Your task to perform on an android device: Turn off the flashlight Image 0: 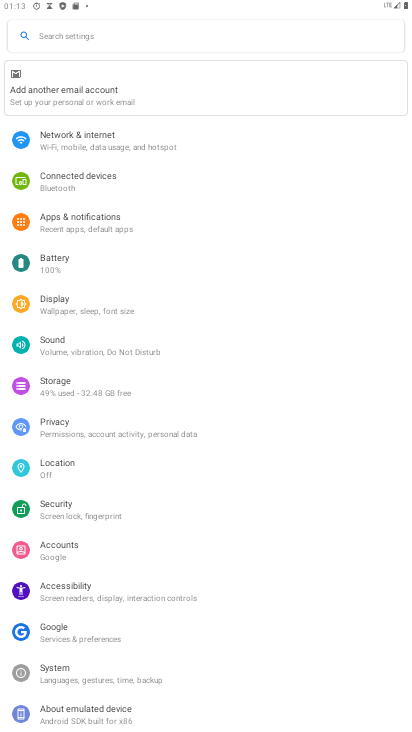
Step 0: press home button
Your task to perform on an android device: Turn off the flashlight Image 1: 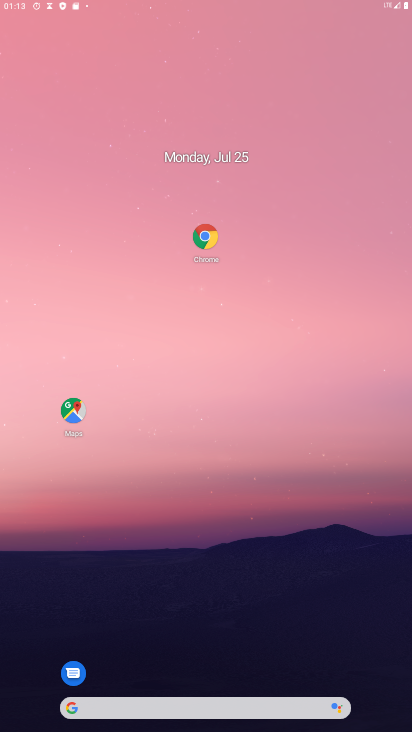
Step 1: drag from (198, 688) to (244, 2)
Your task to perform on an android device: Turn off the flashlight Image 2: 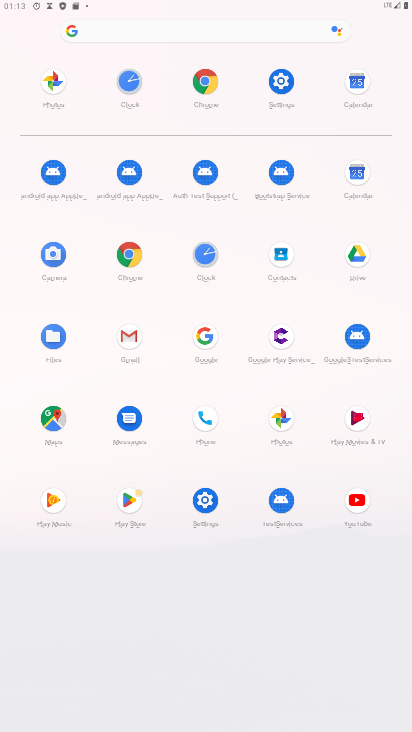
Step 2: click (283, 80)
Your task to perform on an android device: Turn off the flashlight Image 3: 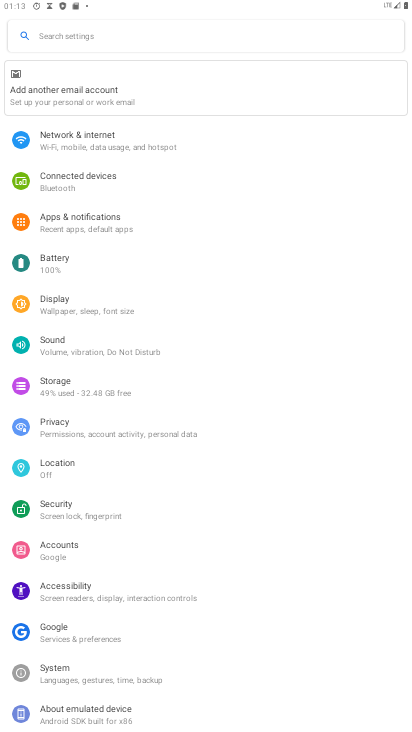
Step 3: task complete